Your task to perform on an android device: see sites visited before in the chrome app Image 0: 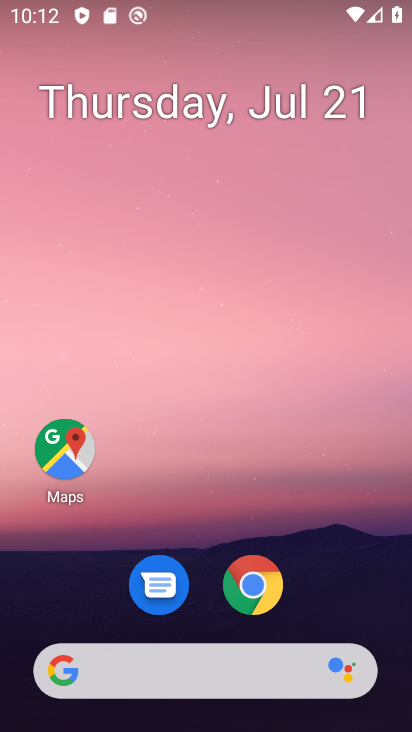
Step 0: click (263, 585)
Your task to perform on an android device: see sites visited before in the chrome app Image 1: 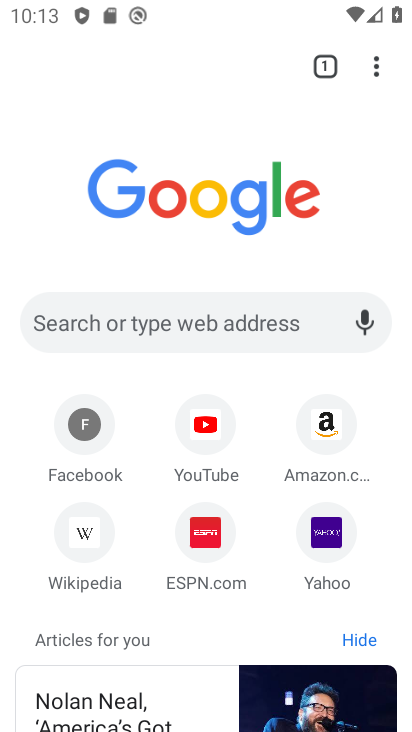
Step 1: task complete